Your task to perform on an android device: Open accessibility settings Image 0: 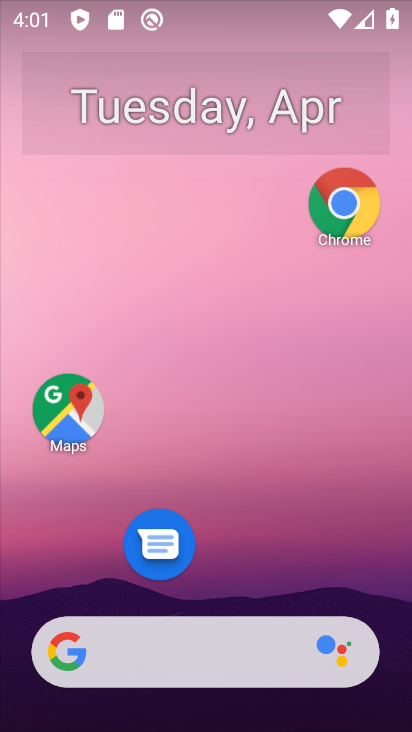
Step 0: drag from (244, 586) to (290, 16)
Your task to perform on an android device: Open accessibility settings Image 1: 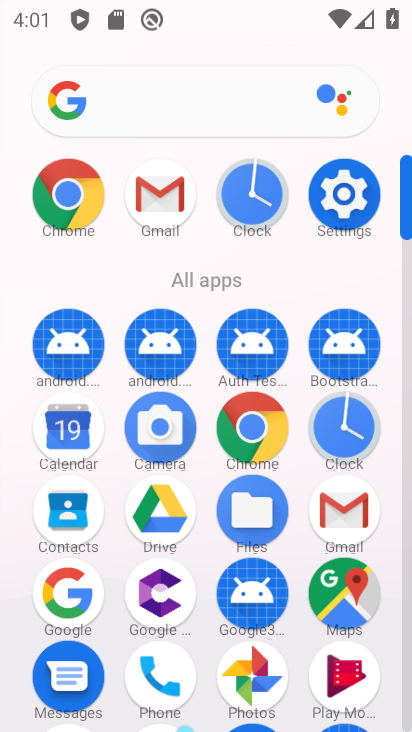
Step 1: click (351, 208)
Your task to perform on an android device: Open accessibility settings Image 2: 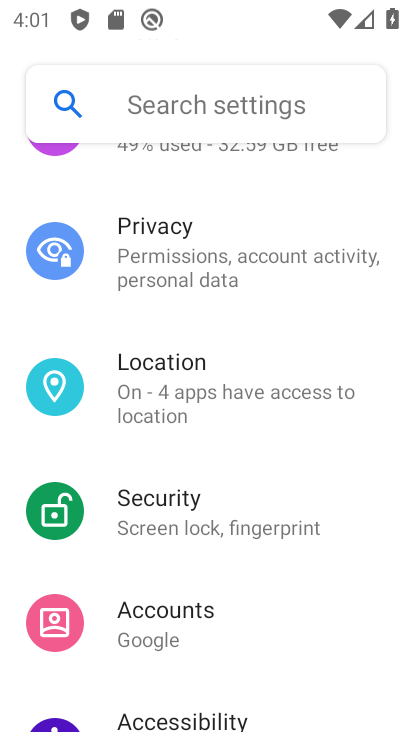
Step 2: drag from (196, 652) to (250, 346)
Your task to perform on an android device: Open accessibility settings Image 3: 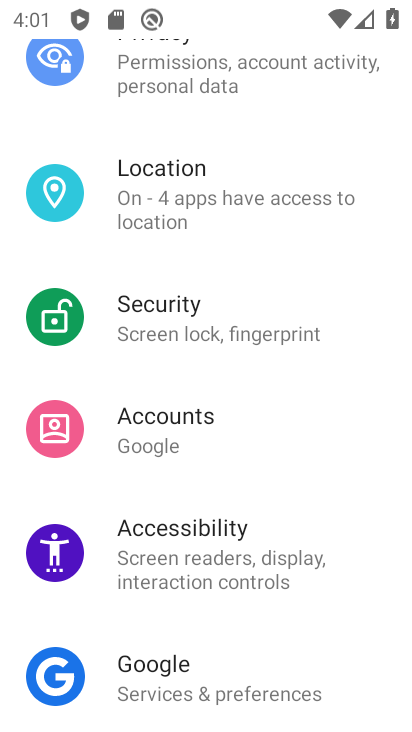
Step 3: click (223, 551)
Your task to perform on an android device: Open accessibility settings Image 4: 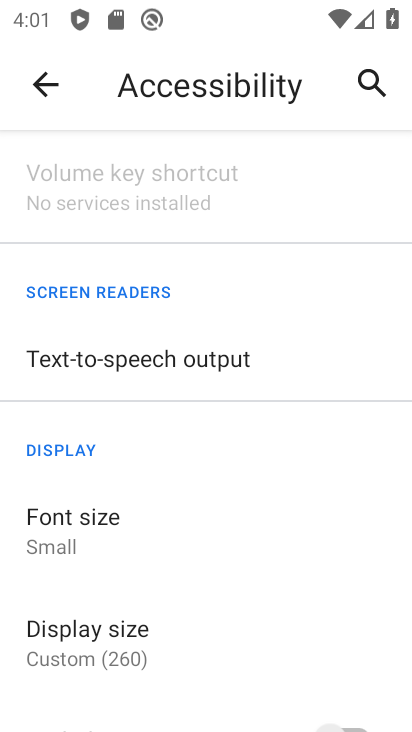
Step 4: task complete